Your task to perform on an android device: visit the assistant section in the google photos Image 0: 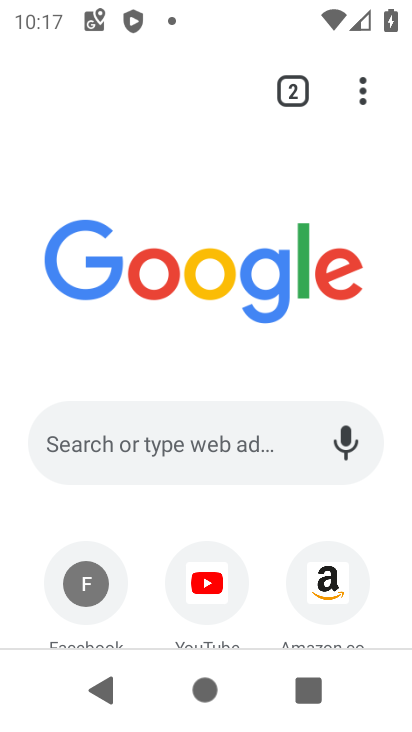
Step 0: press home button
Your task to perform on an android device: visit the assistant section in the google photos Image 1: 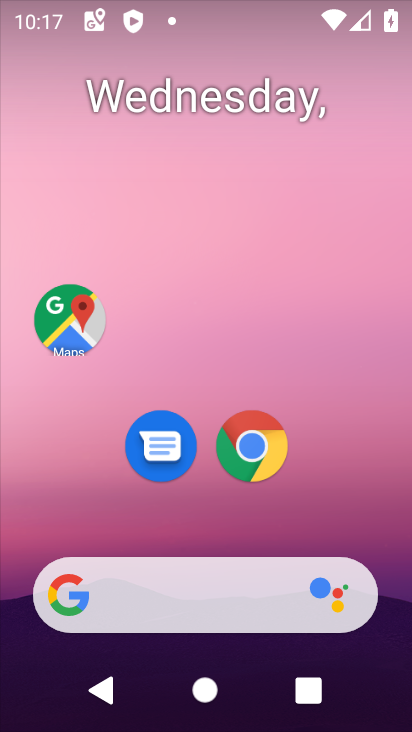
Step 1: drag from (176, 520) to (216, 299)
Your task to perform on an android device: visit the assistant section in the google photos Image 2: 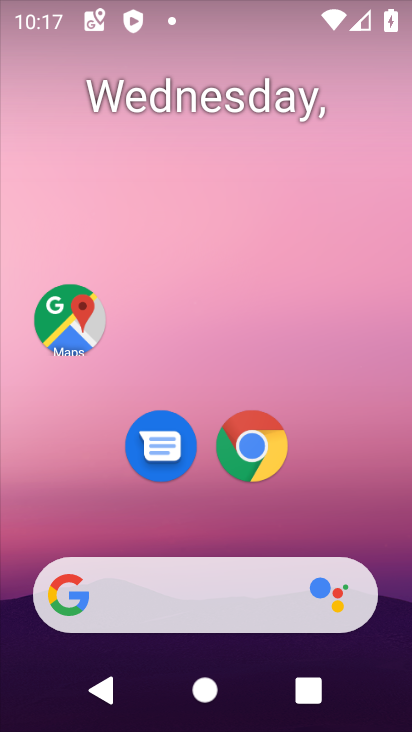
Step 2: click (163, 638)
Your task to perform on an android device: visit the assistant section in the google photos Image 3: 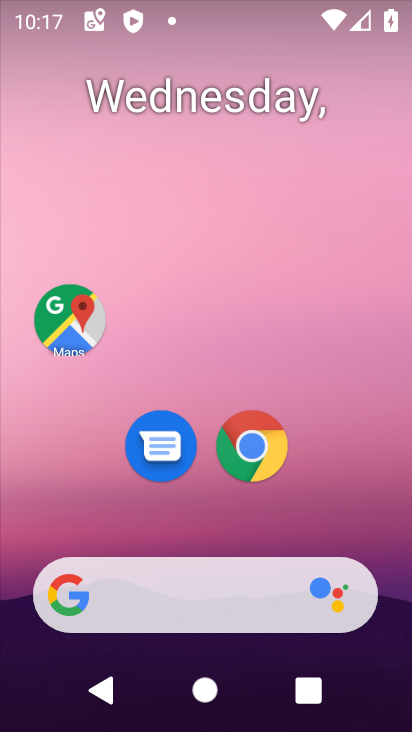
Step 3: drag from (197, 589) to (331, 60)
Your task to perform on an android device: visit the assistant section in the google photos Image 4: 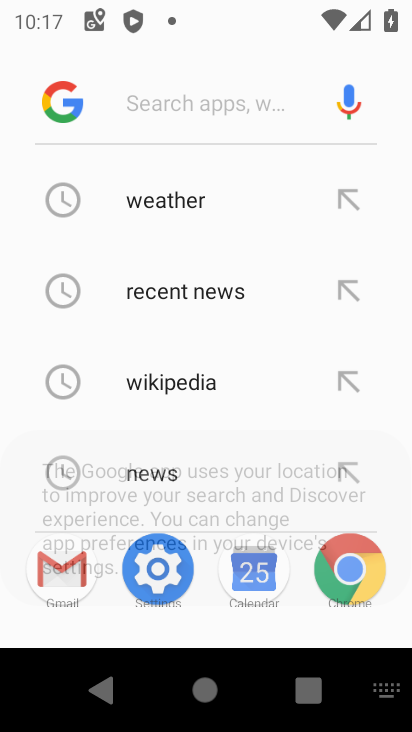
Step 4: press home button
Your task to perform on an android device: visit the assistant section in the google photos Image 5: 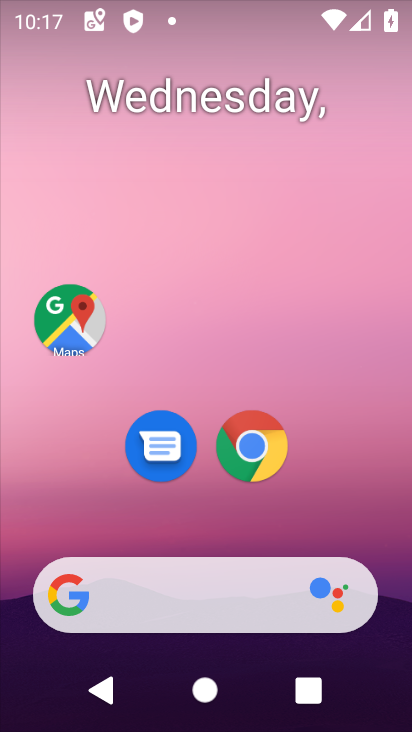
Step 5: drag from (185, 551) to (185, 25)
Your task to perform on an android device: visit the assistant section in the google photos Image 6: 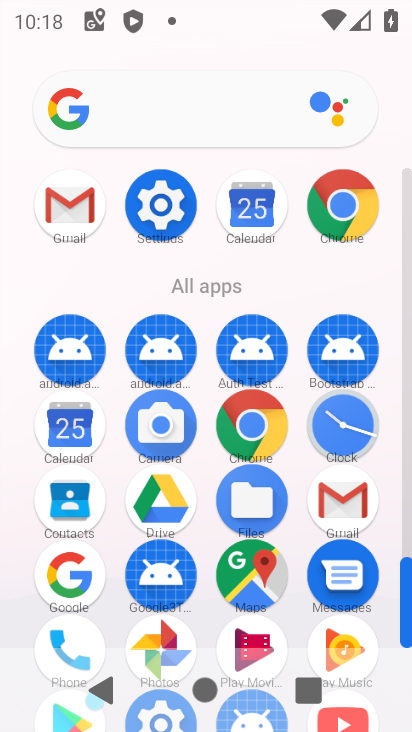
Step 6: click (161, 640)
Your task to perform on an android device: visit the assistant section in the google photos Image 7: 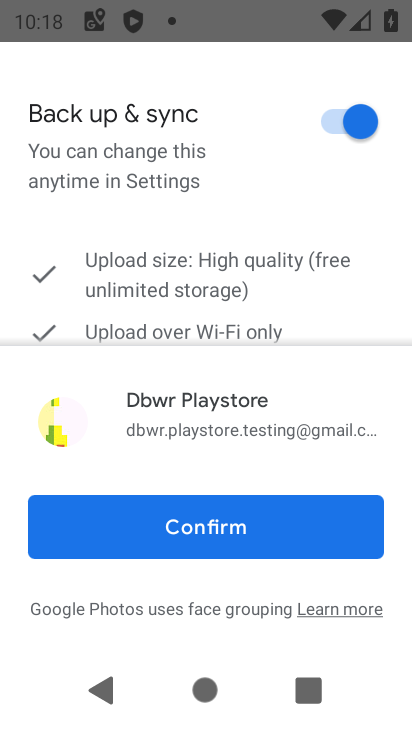
Step 7: click (186, 534)
Your task to perform on an android device: visit the assistant section in the google photos Image 8: 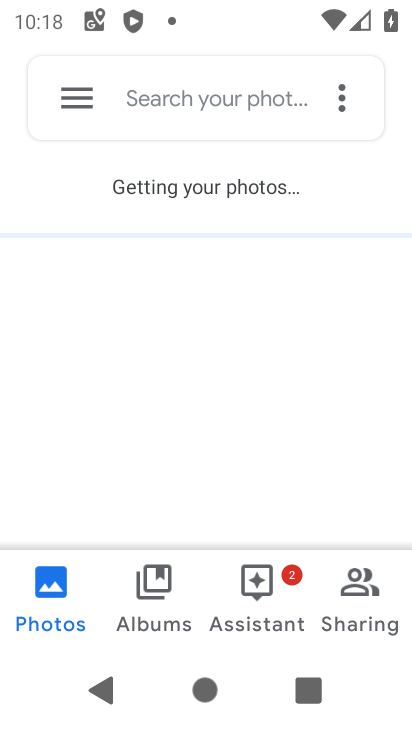
Step 8: click (234, 628)
Your task to perform on an android device: visit the assistant section in the google photos Image 9: 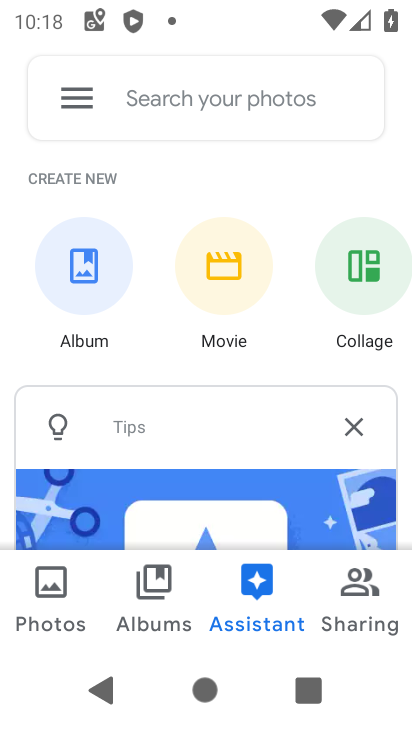
Step 9: task complete